Your task to perform on an android device: open app "Calculator" (install if not already installed) Image 0: 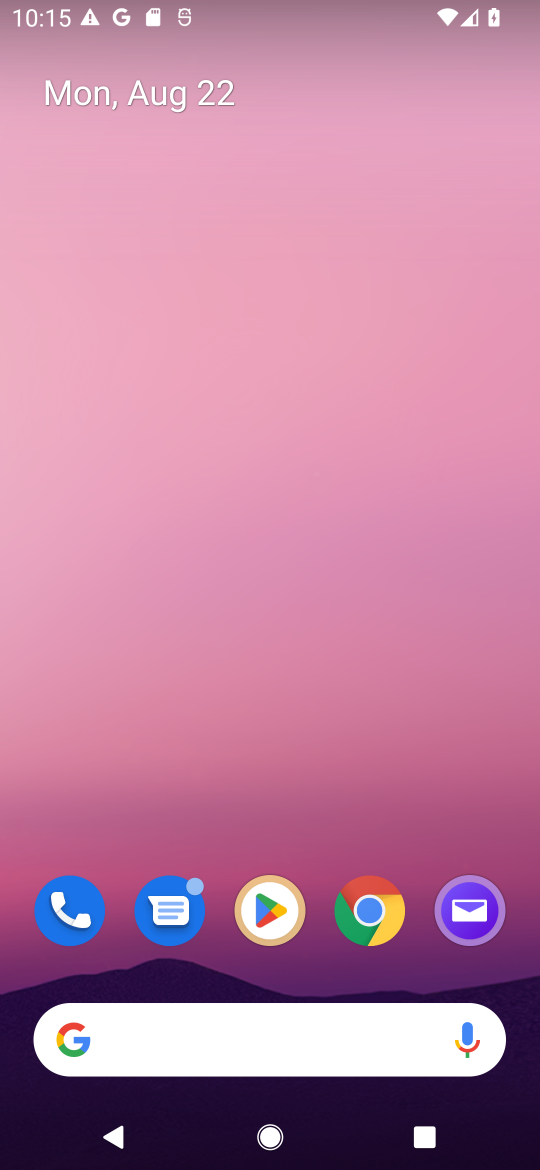
Step 0: click (252, 928)
Your task to perform on an android device: open app "Calculator" (install if not already installed) Image 1: 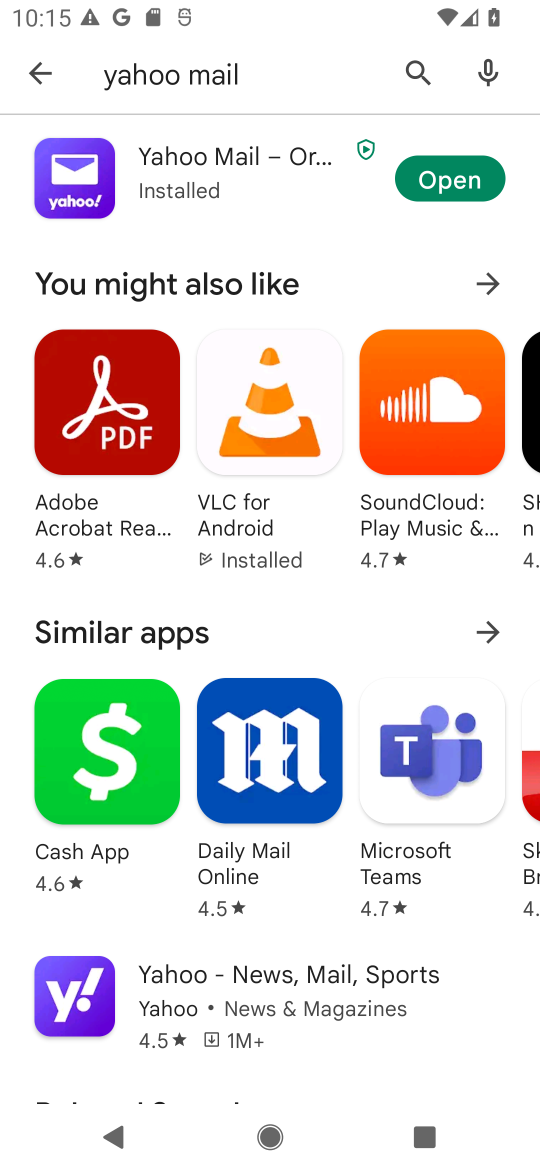
Step 1: click (432, 63)
Your task to perform on an android device: open app "Calculator" (install if not already installed) Image 2: 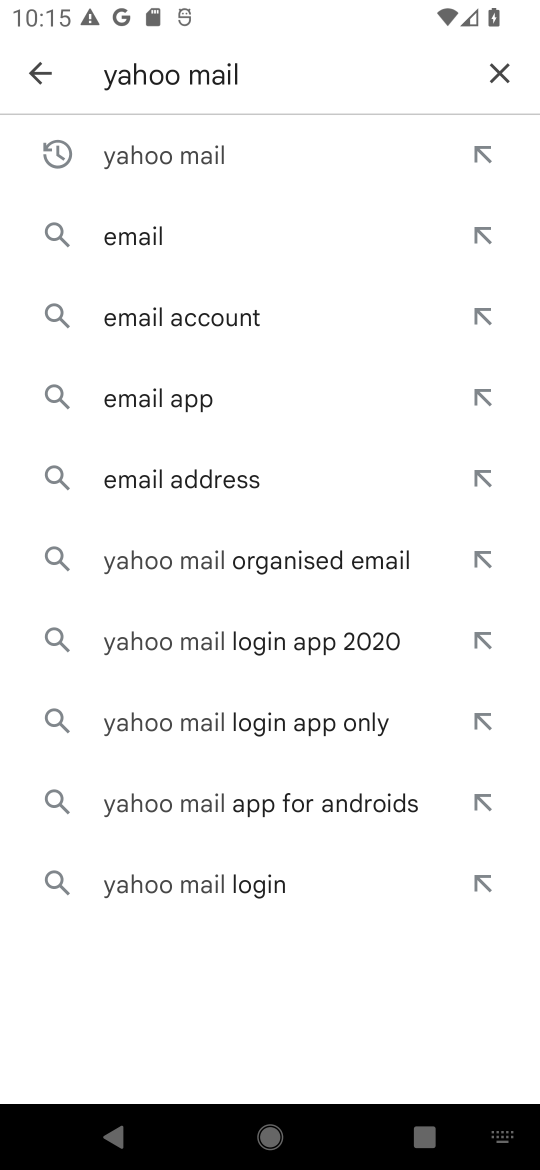
Step 2: click (478, 63)
Your task to perform on an android device: open app "Calculator" (install if not already installed) Image 3: 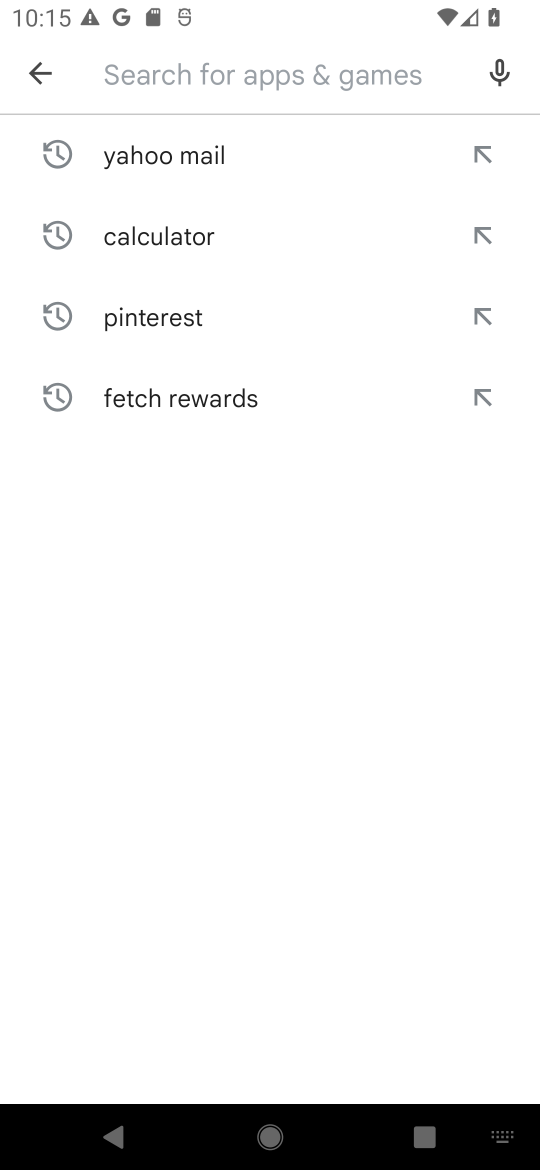
Step 3: type "Calculator"
Your task to perform on an android device: open app "Calculator" (install if not already installed) Image 4: 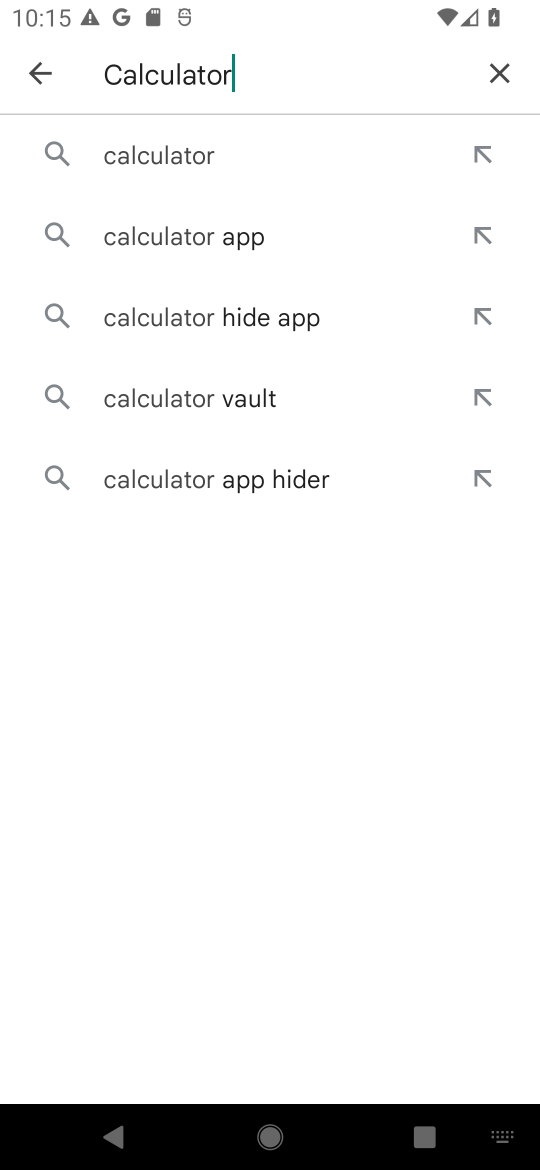
Step 4: click (164, 164)
Your task to perform on an android device: open app "Calculator" (install if not already installed) Image 5: 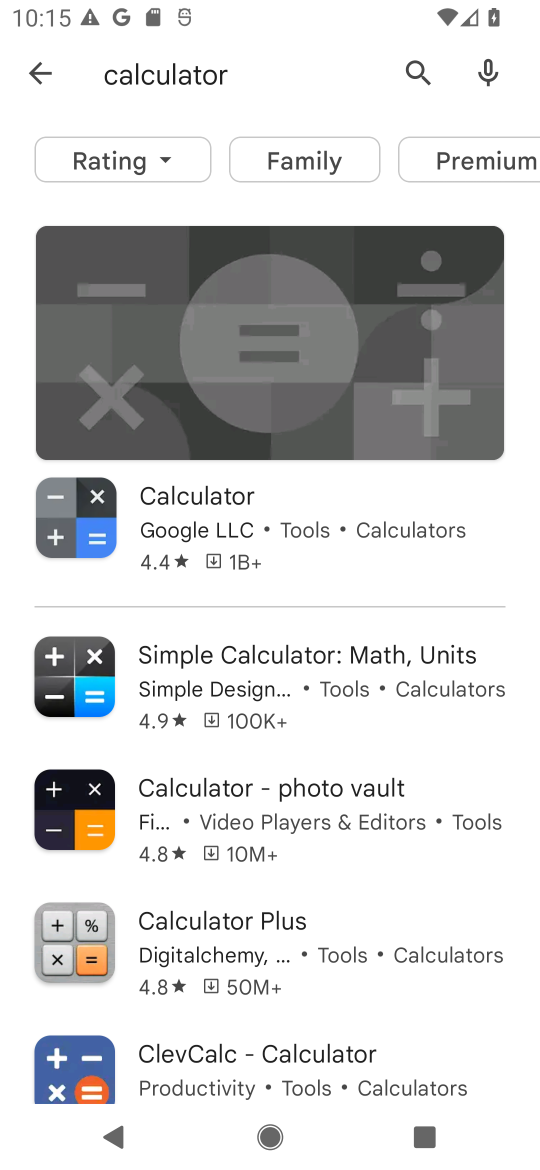
Step 5: click (290, 506)
Your task to perform on an android device: open app "Calculator" (install if not already installed) Image 6: 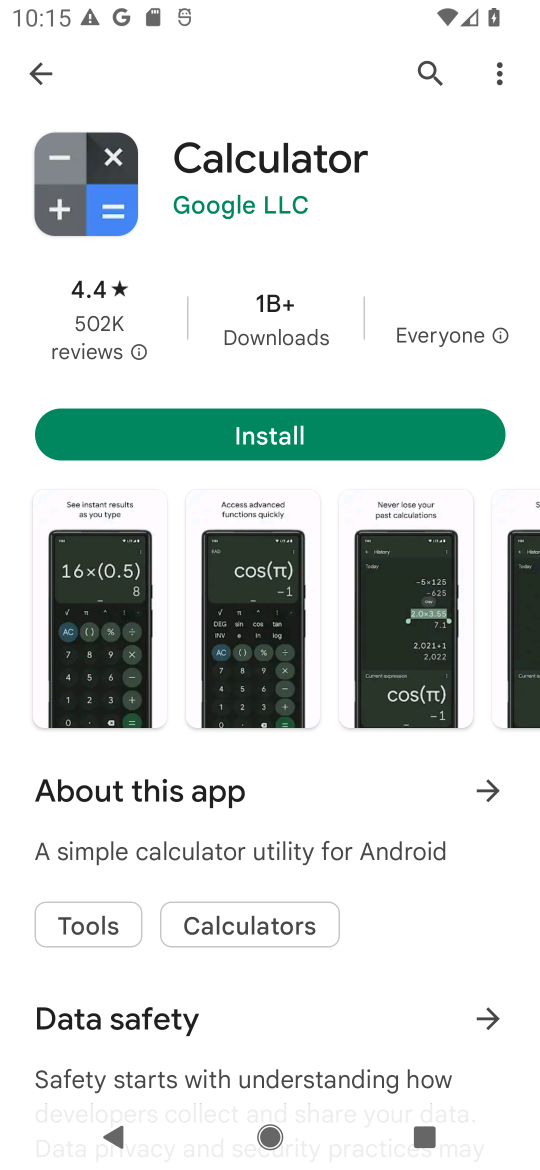
Step 6: click (337, 437)
Your task to perform on an android device: open app "Calculator" (install if not already installed) Image 7: 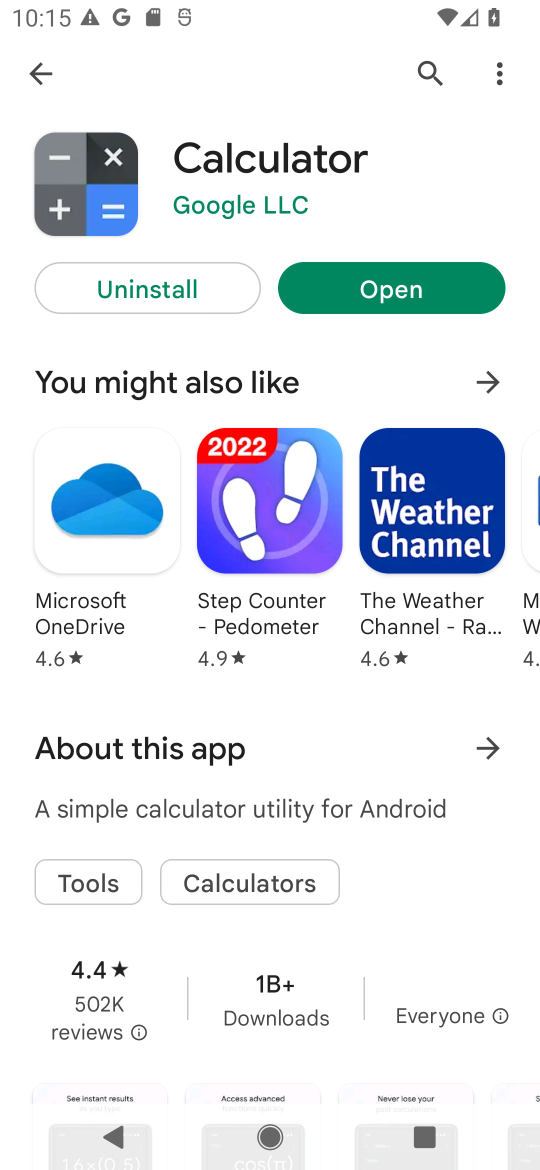
Step 7: click (393, 304)
Your task to perform on an android device: open app "Calculator" (install if not already installed) Image 8: 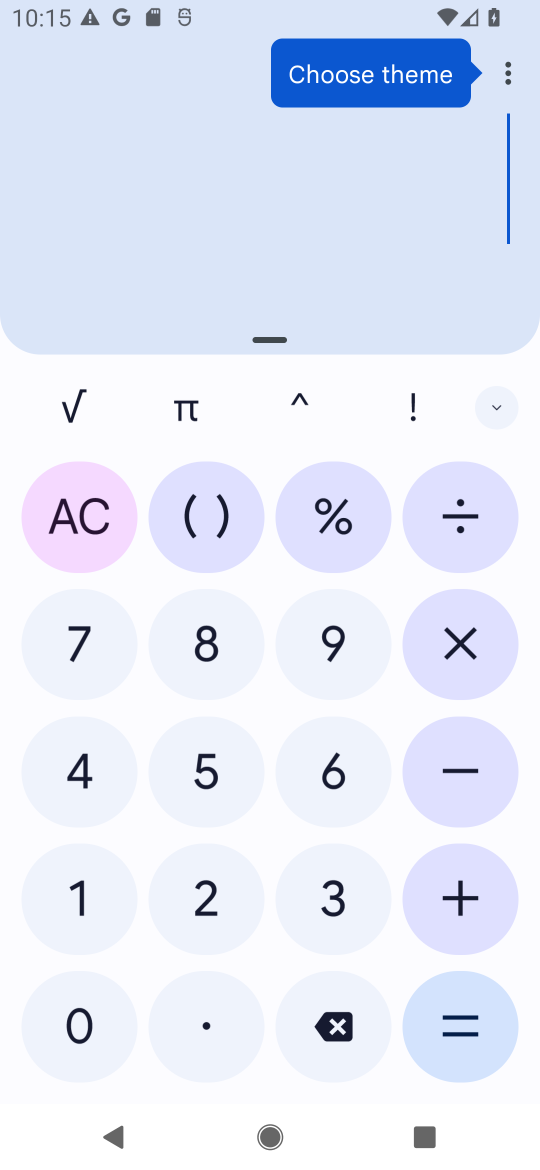
Step 8: task complete